Your task to perform on an android device: turn off sleep mode Image 0: 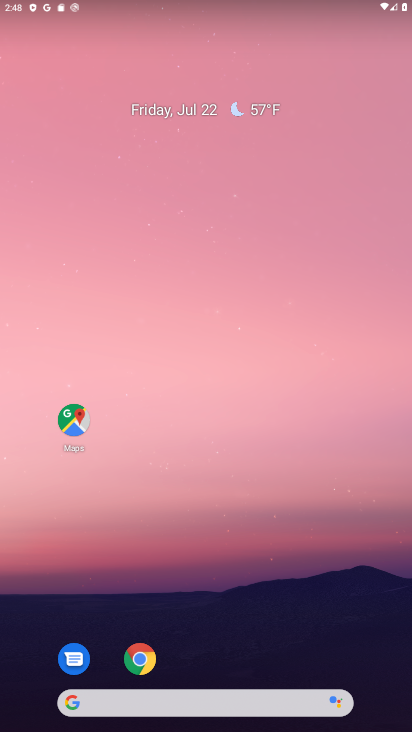
Step 0: drag from (223, 627) to (274, 39)
Your task to perform on an android device: turn off sleep mode Image 1: 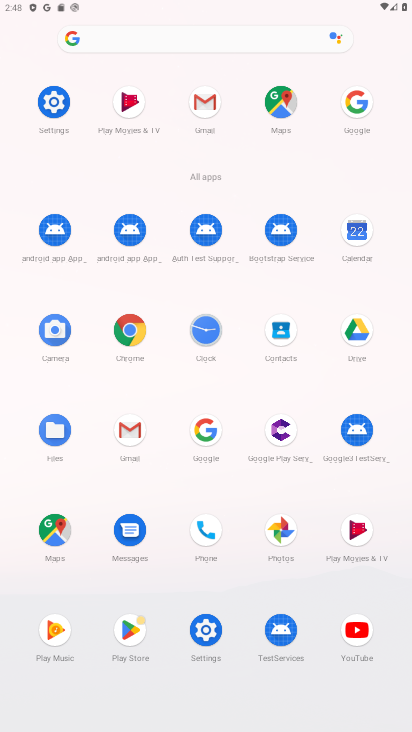
Step 1: click (57, 108)
Your task to perform on an android device: turn off sleep mode Image 2: 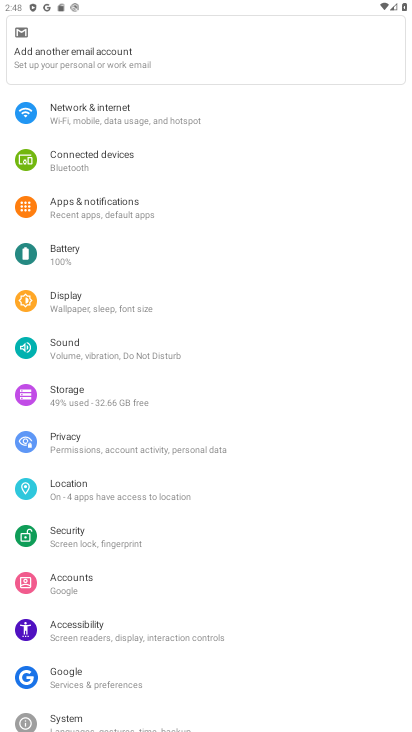
Step 2: task complete